Your task to perform on an android device: toggle improve location accuracy Image 0: 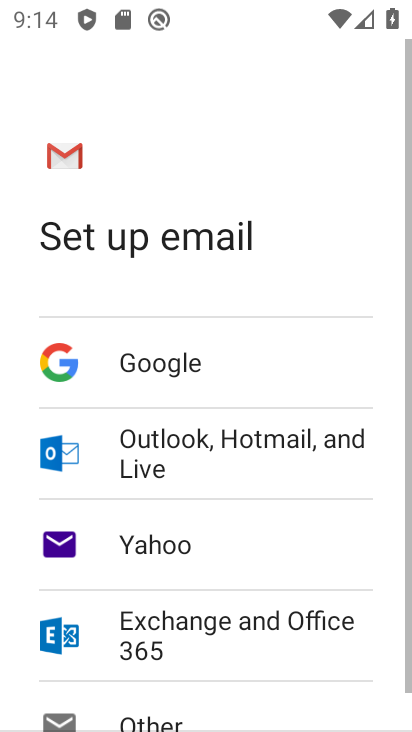
Step 0: press home button
Your task to perform on an android device: toggle improve location accuracy Image 1: 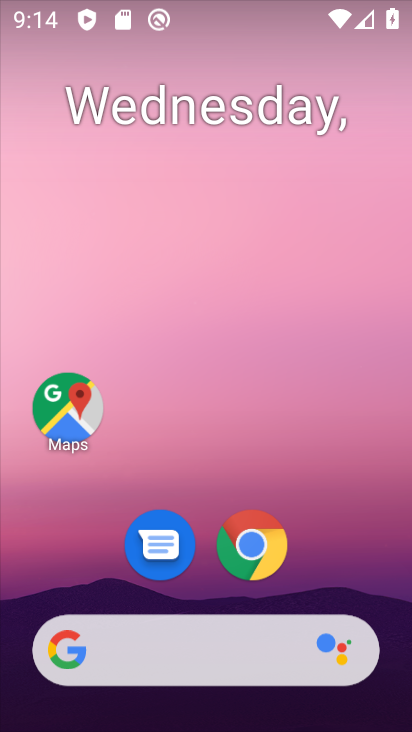
Step 1: drag from (261, 356) to (283, 140)
Your task to perform on an android device: toggle improve location accuracy Image 2: 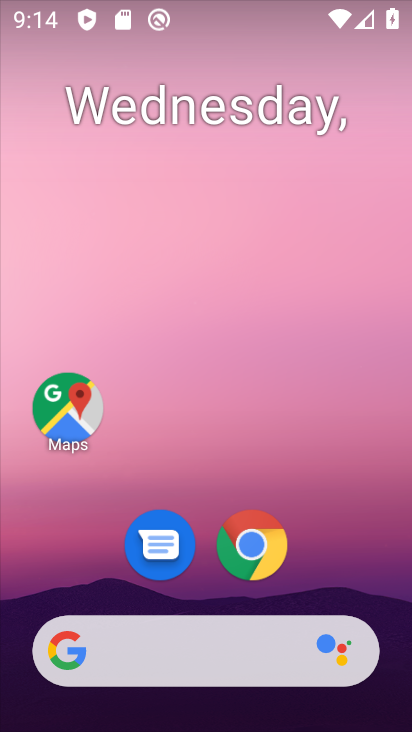
Step 2: drag from (262, 595) to (249, 57)
Your task to perform on an android device: toggle improve location accuracy Image 3: 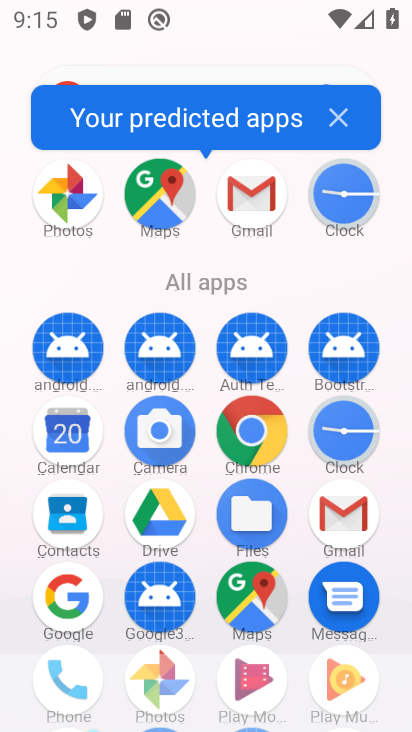
Step 3: click (411, 654)
Your task to perform on an android device: toggle improve location accuracy Image 4: 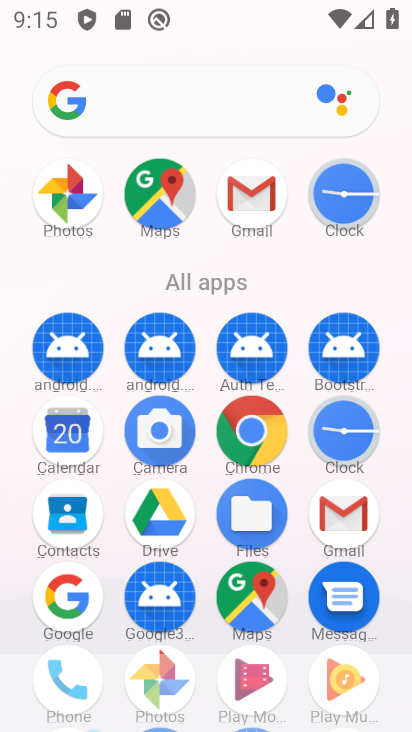
Step 4: drag from (250, 493) to (308, 106)
Your task to perform on an android device: toggle improve location accuracy Image 5: 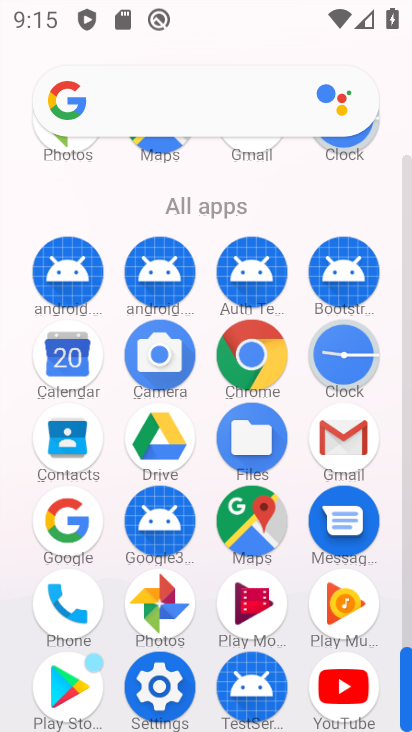
Step 5: click (172, 679)
Your task to perform on an android device: toggle improve location accuracy Image 6: 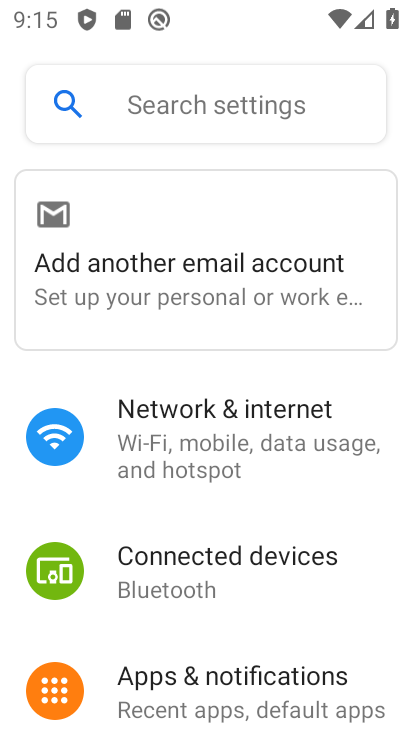
Step 6: drag from (242, 472) to (274, 250)
Your task to perform on an android device: toggle improve location accuracy Image 7: 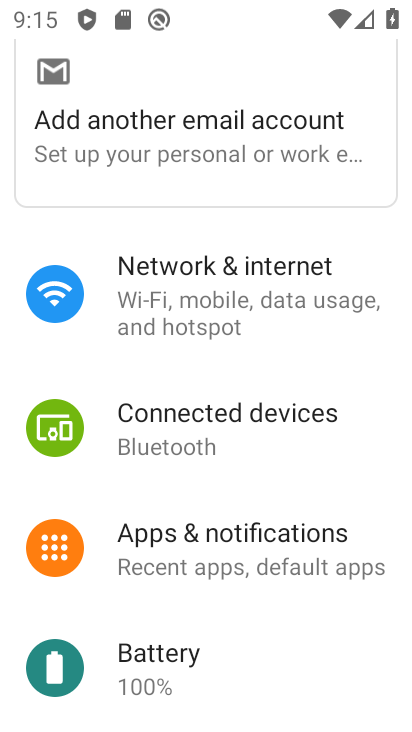
Step 7: drag from (262, 474) to (279, 256)
Your task to perform on an android device: toggle improve location accuracy Image 8: 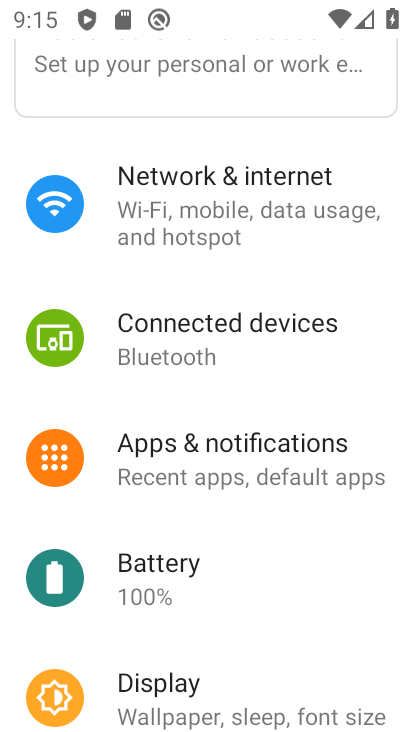
Step 8: drag from (249, 566) to (272, 226)
Your task to perform on an android device: toggle improve location accuracy Image 9: 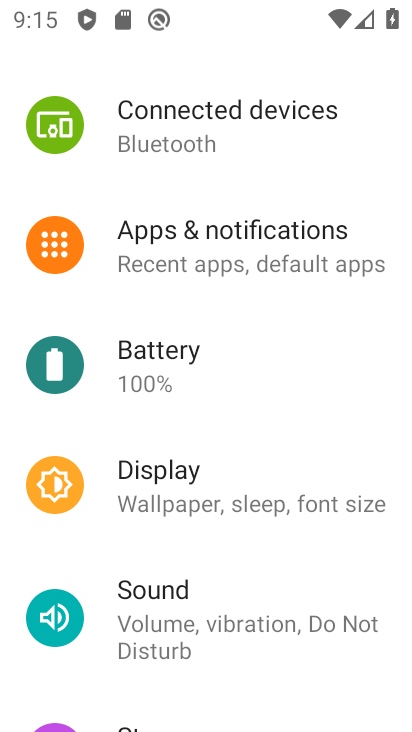
Step 9: drag from (237, 557) to (265, 203)
Your task to perform on an android device: toggle improve location accuracy Image 10: 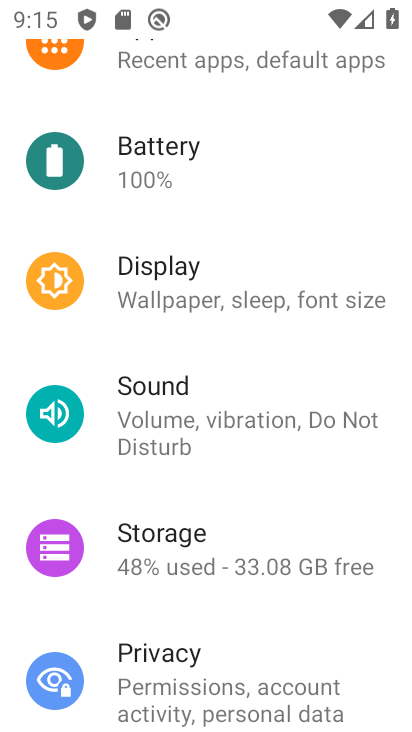
Step 10: drag from (224, 590) to (224, 331)
Your task to perform on an android device: toggle improve location accuracy Image 11: 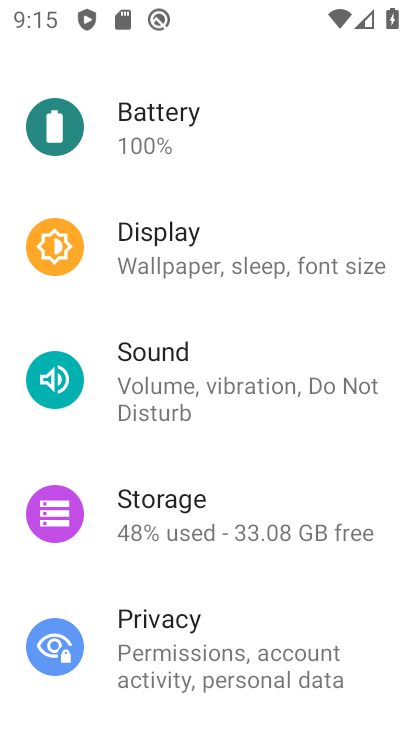
Step 11: drag from (269, 563) to (313, 276)
Your task to perform on an android device: toggle improve location accuracy Image 12: 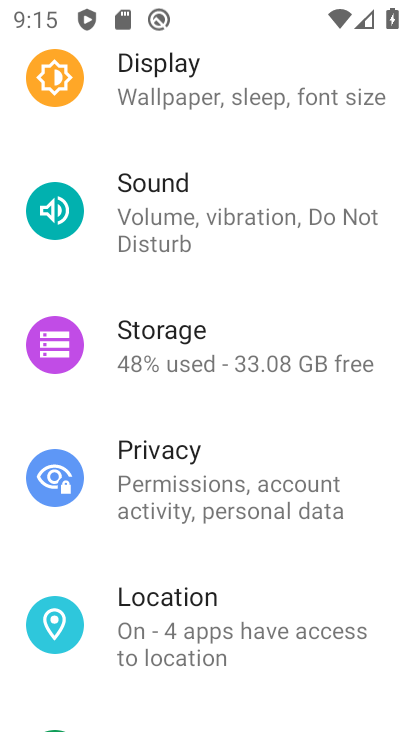
Step 12: click (241, 614)
Your task to perform on an android device: toggle improve location accuracy Image 13: 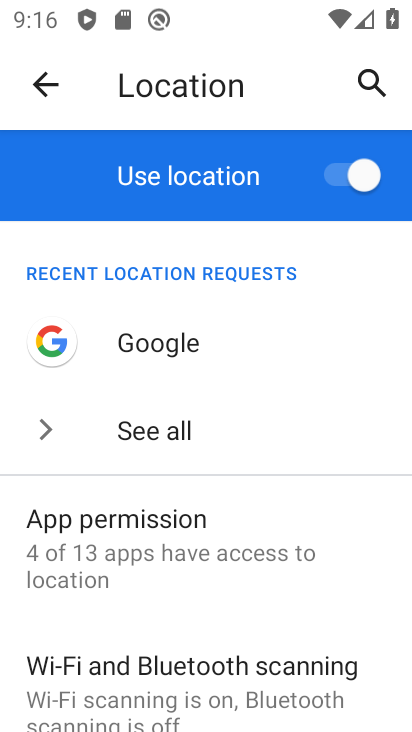
Step 13: drag from (241, 622) to (295, 319)
Your task to perform on an android device: toggle improve location accuracy Image 14: 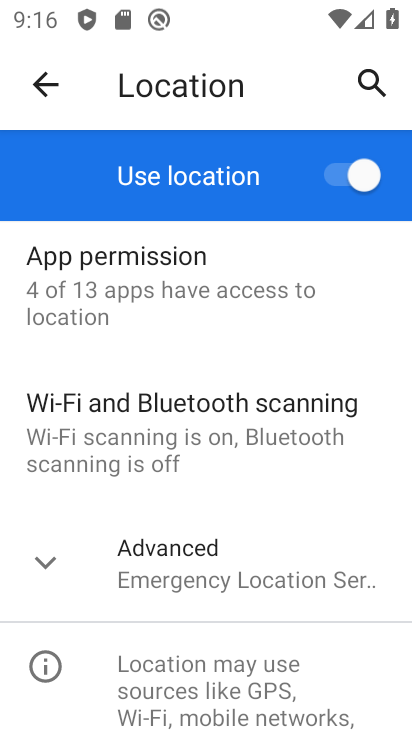
Step 14: click (293, 569)
Your task to perform on an android device: toggle improve location accuracy Image 15: 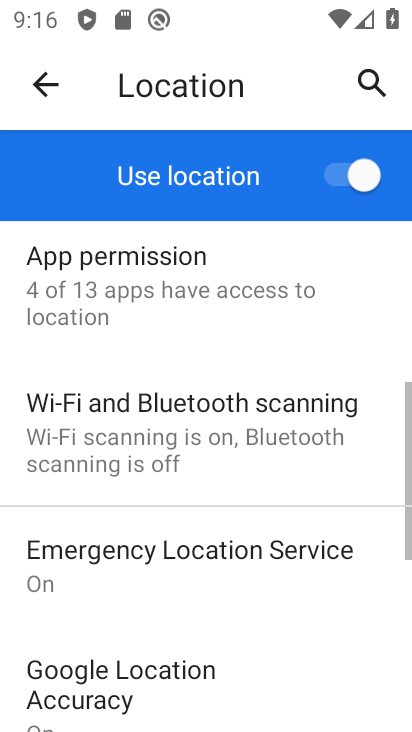
Step 15: drag from (272, 603) to (314, 369)
Your task to perform on an android device: toggle improve location accuracy Image 16: 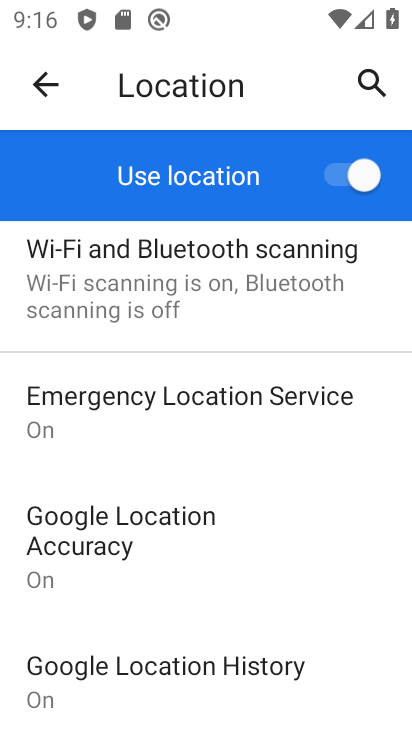
Step 16: click (260, 529)
Your task to perform on an android device: toggle improve location accuracy Image 17: 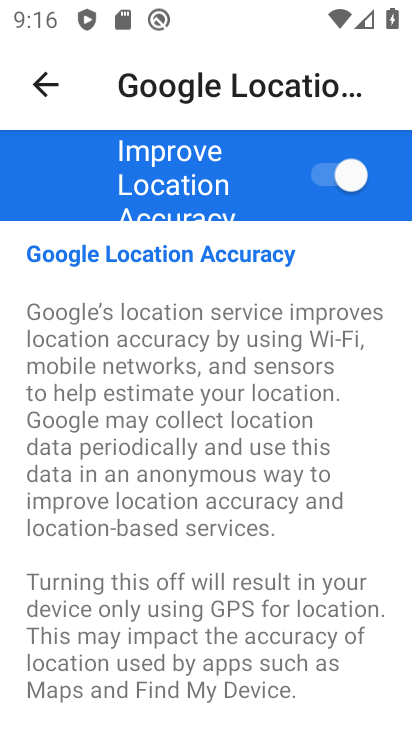
Step 17: click (329, 187)
Your task to perform on an android device: toggle improve location accuracy Image 18: 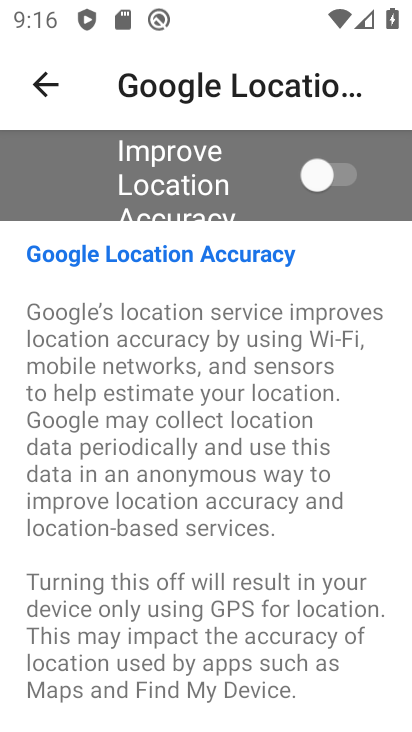
Step 18: task complete